Your task to perform on an android device: open app "Etsy: Buy & Sell Unique Items" (install if not already installed) and go to login screen Image 0: 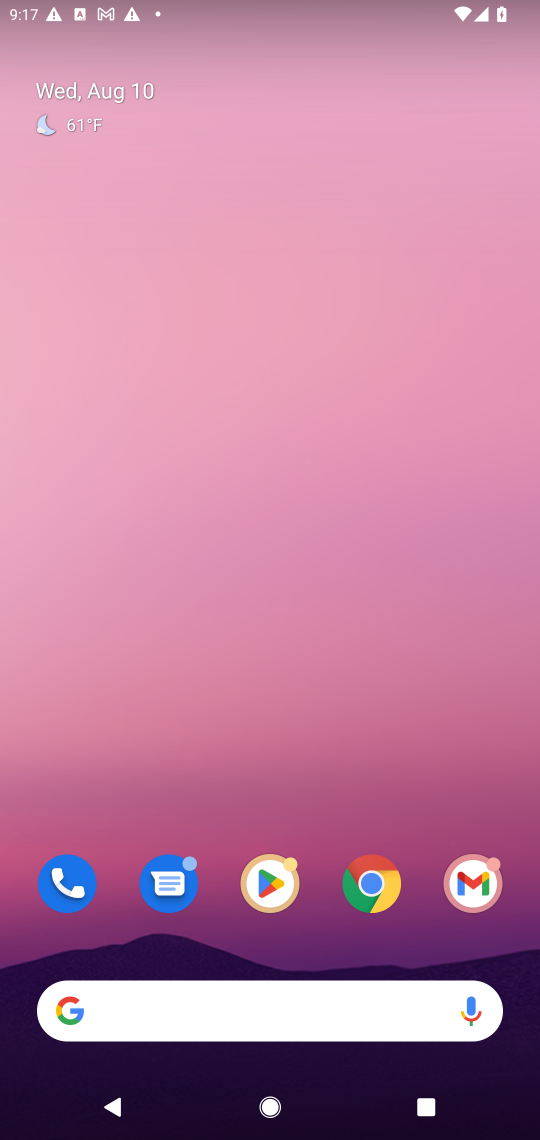
Step 0: click (286, 892)
Your task to perform on an android device: open app "Etsy: Buy & Sell Unique Items" (install if not already installed) and go to login screen Image 1: 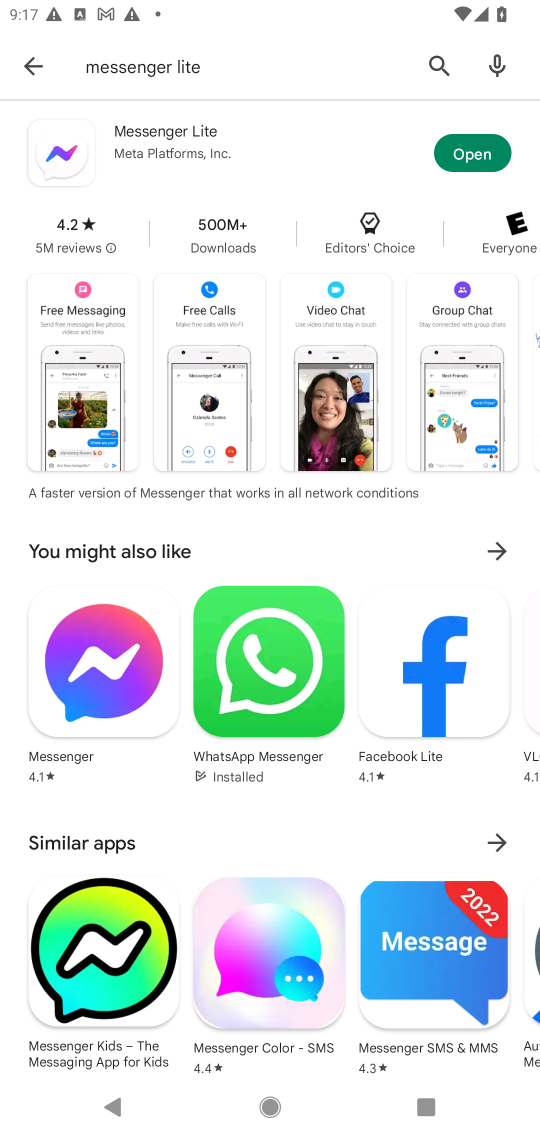
Step 1: click (441, 64)
Your task to perform on an android device: open app "Etsy: Buy & Sell Unique Items" (install if not already installed) and go to login screen Image 2: 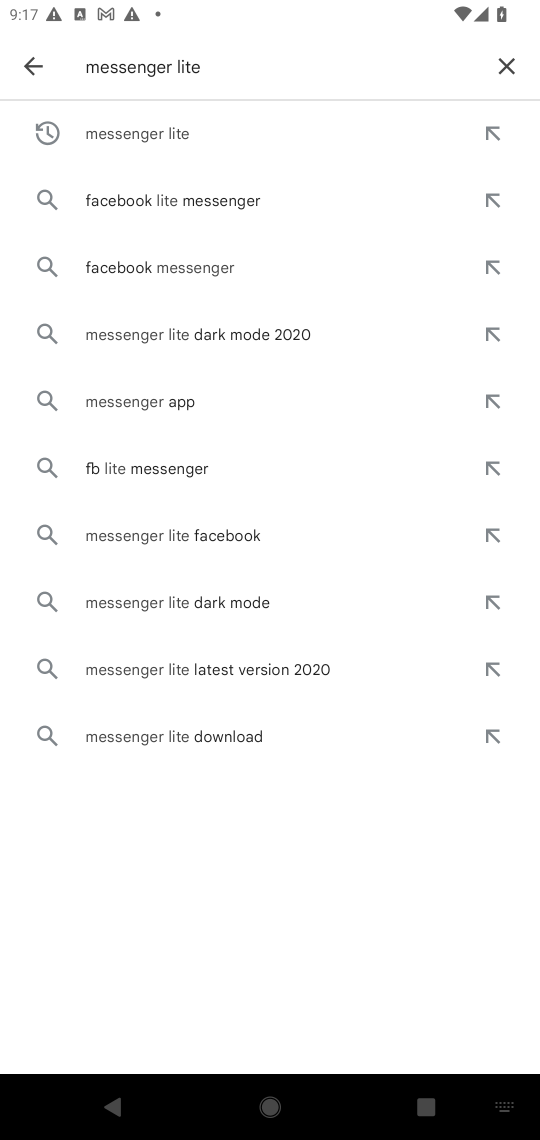
Step 2: click (511, 62)
Your task to perform on an android device: open app "Etsy: Buy & Sell Unique Items" (install if not already installed) and go to login screen Image 3: 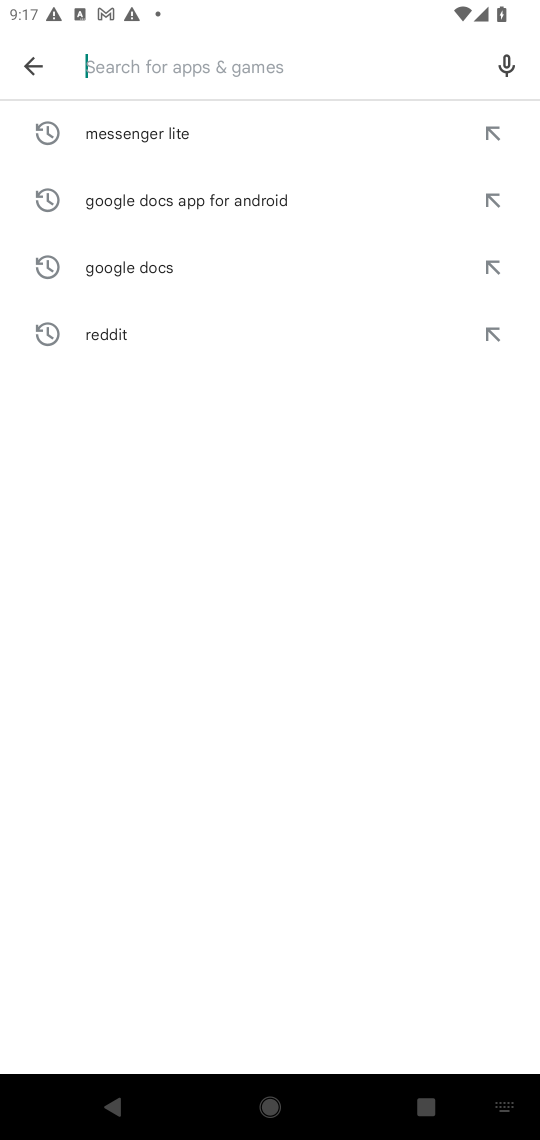
Step 3: type "Etsy: Buy & Sell Unique Items"
Your task to perform on an android device: open app "Etsy: Buy & Sell Unique Items" (install if not already installed) and go to login screen Image 4: 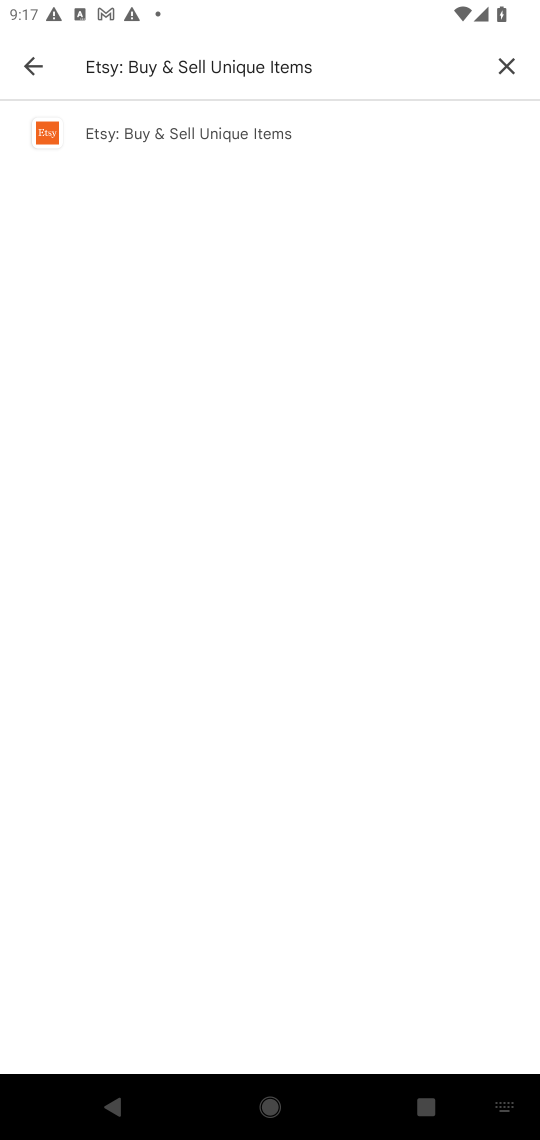
Step 4: click (233, 138)
Your task to perform on an android device: open app "Etsy: Buy & Sell Unique Items" (install if not already installed) and go to login screen Image 5: 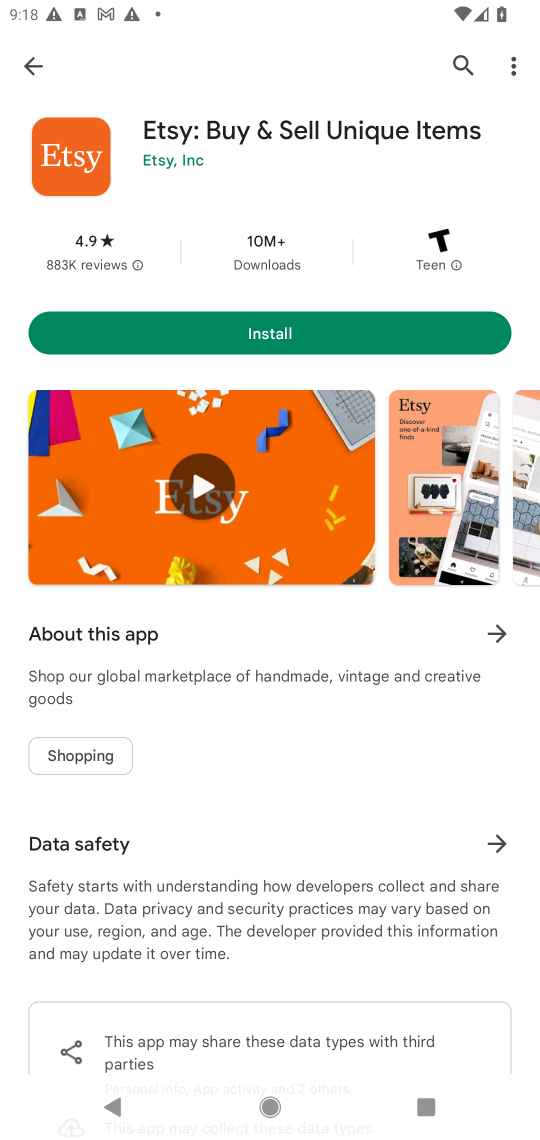
Step 5: click (241, 344)
Your task to perform on an android device: open app "Etsy: Buy & Sell Unique Items" (install if not already installed) and go to login screen Image 6: 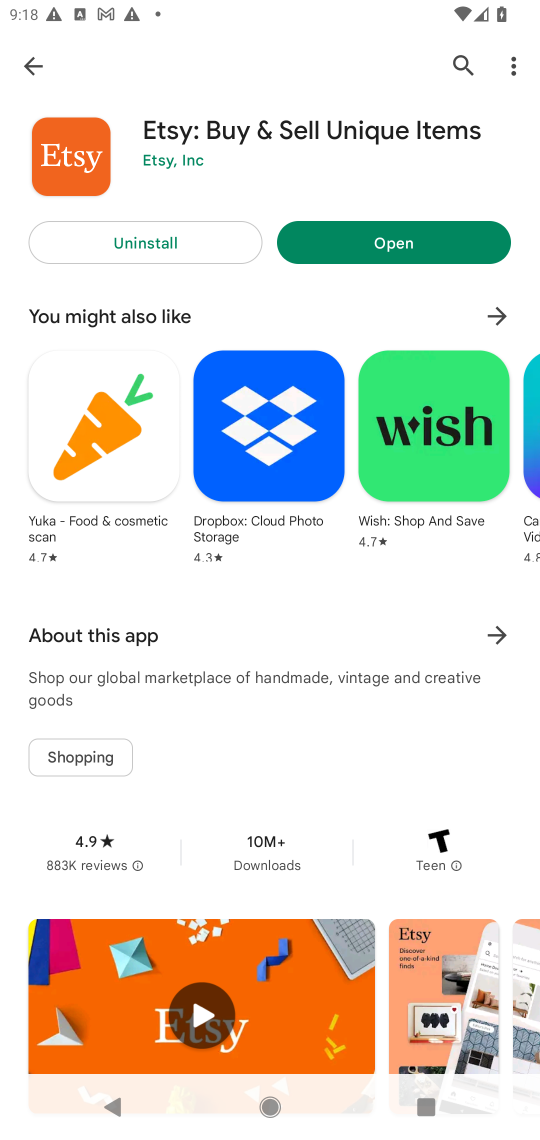
Step 6: click (404, 240)
Your task to perform on an android device: open app "Etsy: Buy & Sell Unique Items" (install if not already installed) and go to login screen Image 7: 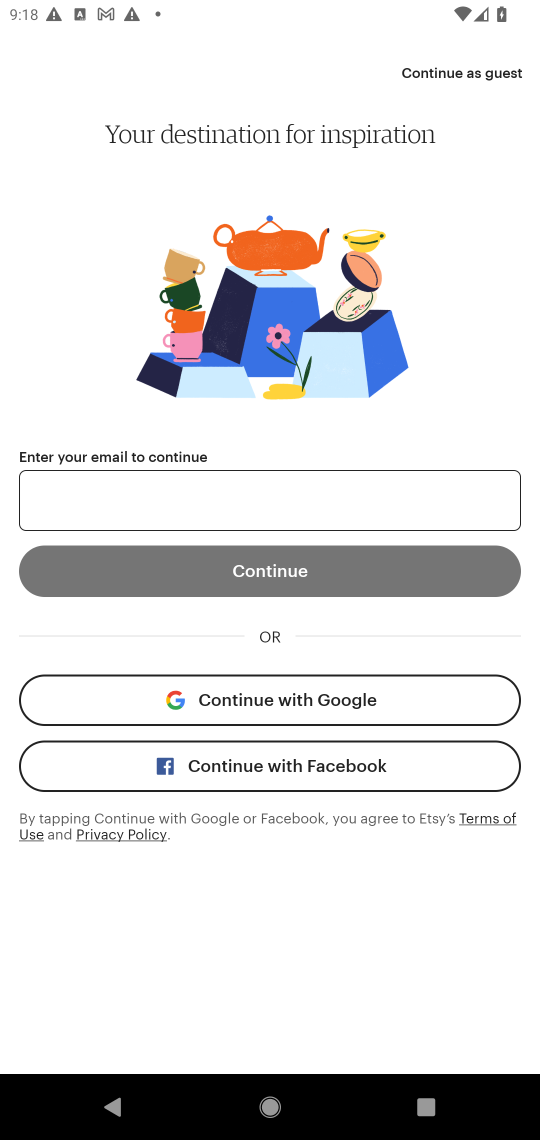
Step 7: task complete